Your task to perform on an android device: Open Google Chrome and click the shortcut for Amazon.com Image 0: 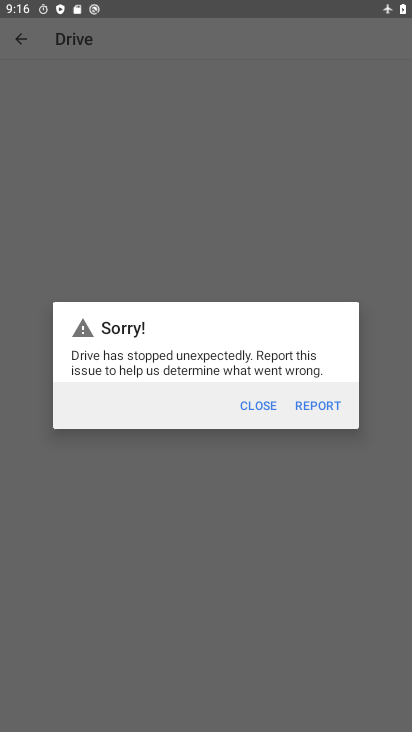
Step 0: press home button
Your task to perform on an android device: Open Google Chrome and click the shortcut for Amazon.com Image 1: 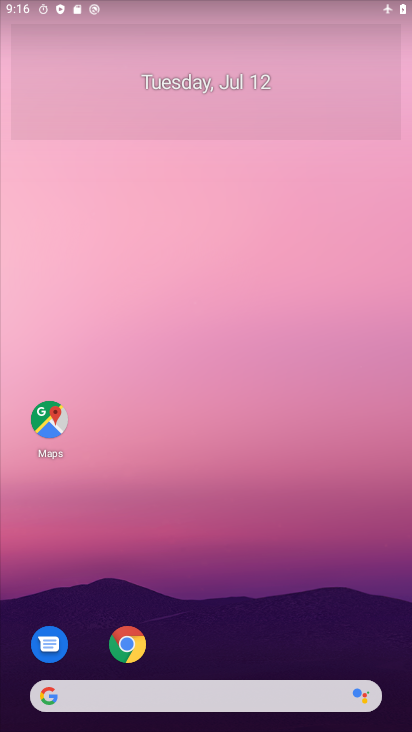
Step 1: click (127, 648)
Your task to perform on an android device: Open Google Chrome and click the shortcut for Amazon.com Image 2: 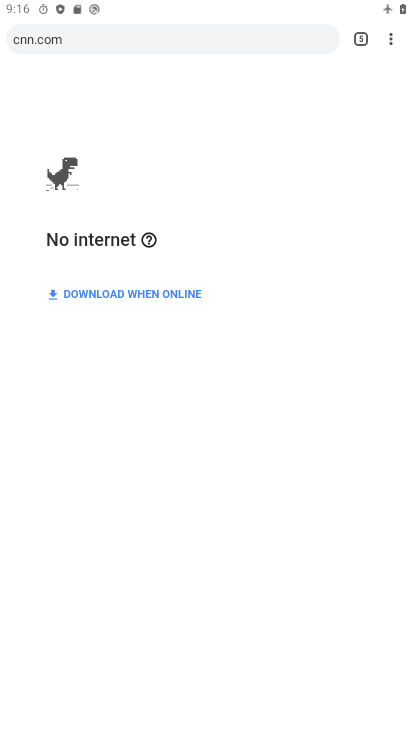
Step 2: click (355, 36)
Your task to perform on an android device: Open Google Chrome and click the shortcut for Amazon.com Image 3: 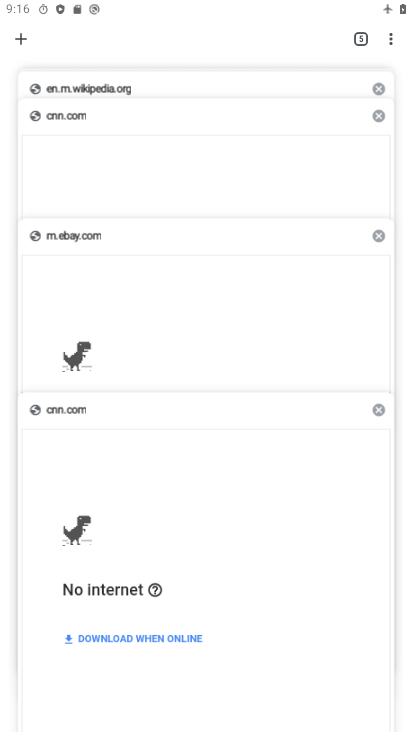
Step 3: click (18, 45)
Your task to perform on an android device: Open Google Chrome and click the shortcut for Amazon.com Image 4: 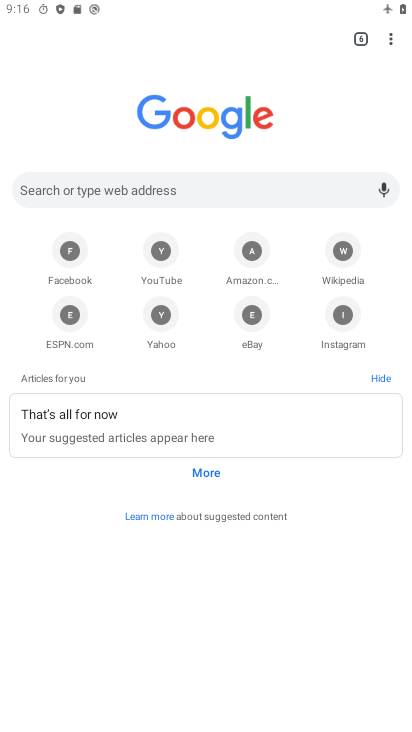
Step 4: click (248, 246)
Your task to perform on an android device: Open Google Chrome and click the shortcut for Amazon.com Image 5: 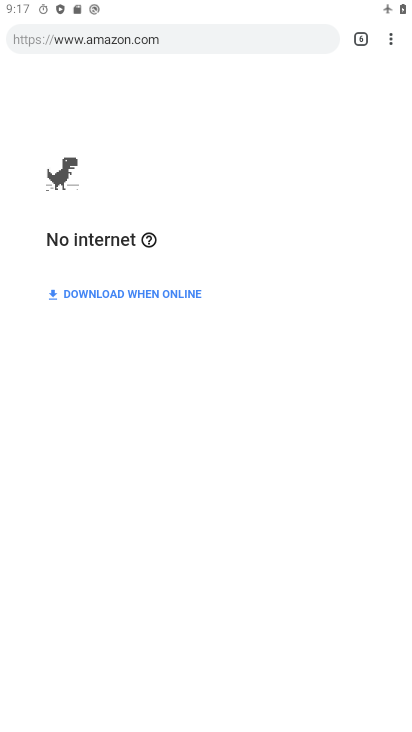
Step 5: task complete